Your task to perform on an android device: toggle wifi Image 0: 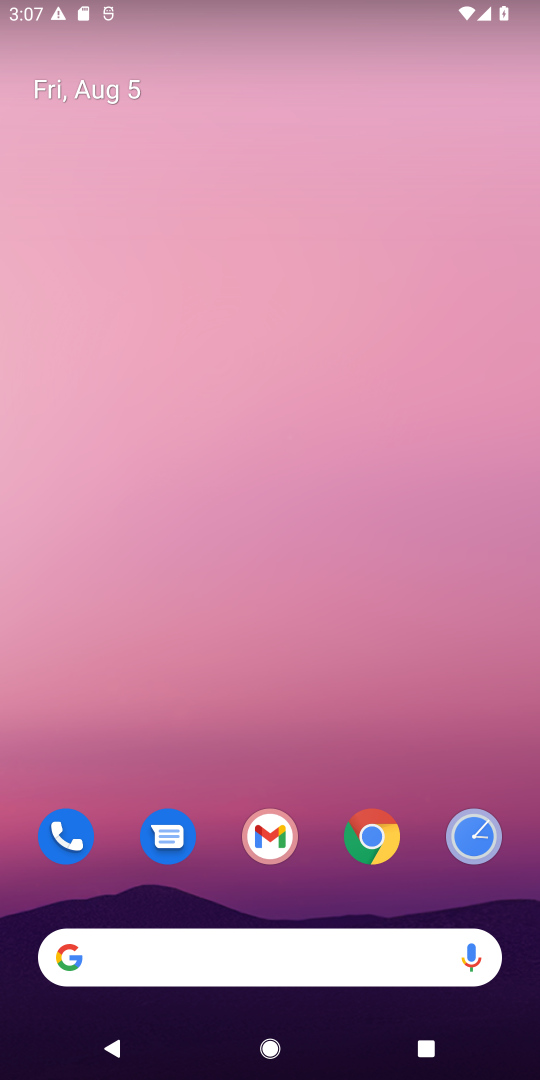
Step 0: drag from (309, 747) to (425, 61)
Your task to perform on an android device: toggle wifi Image 1: 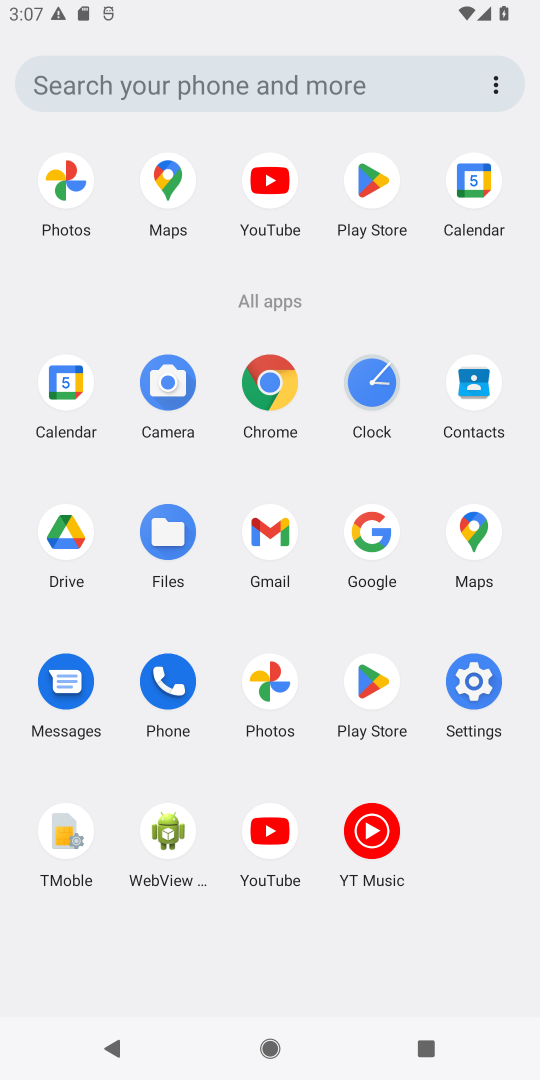
Step 1: click (264, 382)
Your task to perform on an android device: toggle wifi Image 2: 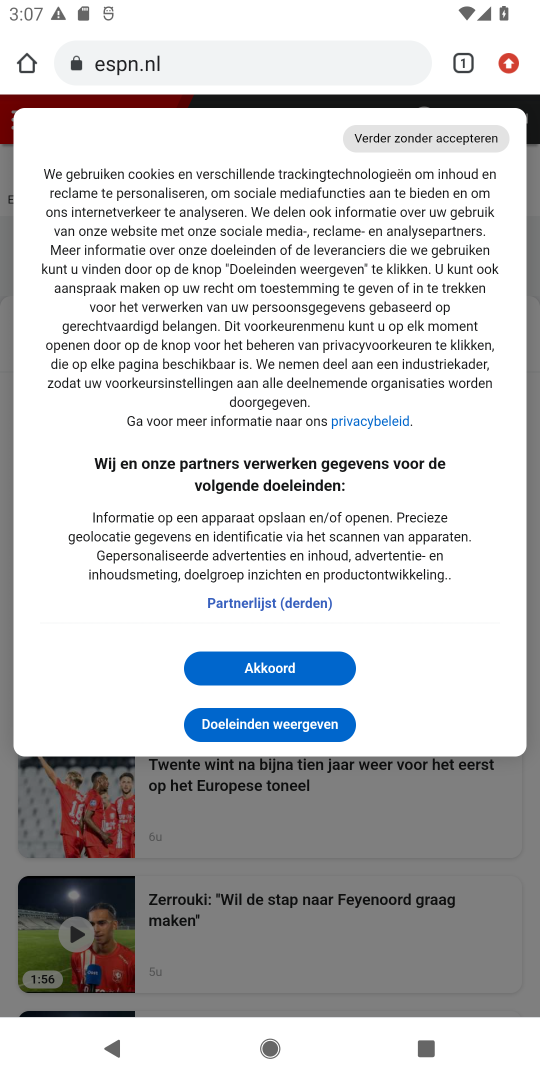
Step 2: press home button
Your task to perform on an android device: toggle wifi Image 3: 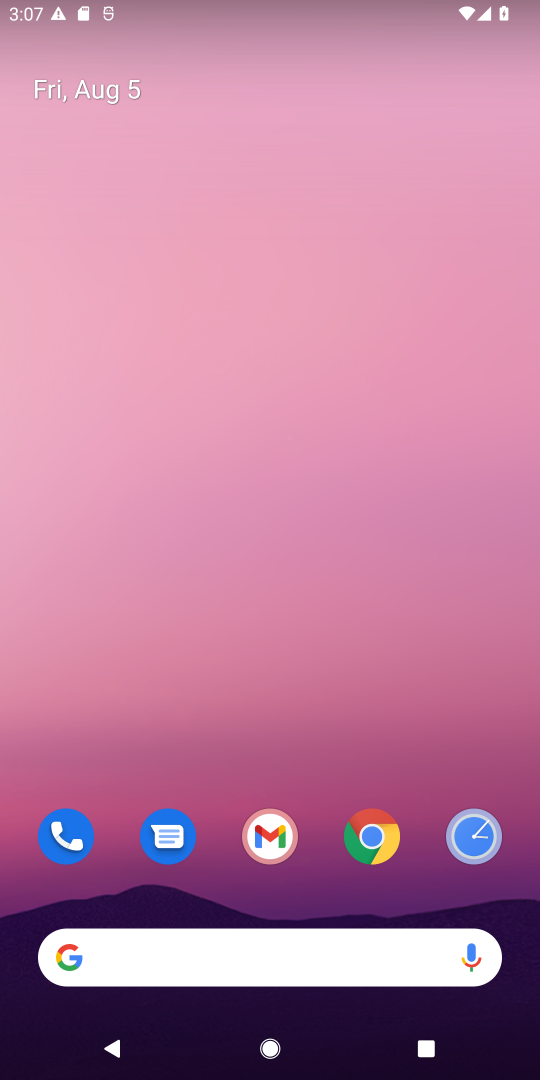
Step 3: drag from (308, 784) to (312, 42)
Your task to perform on an android device: toggle wifi Image 4: 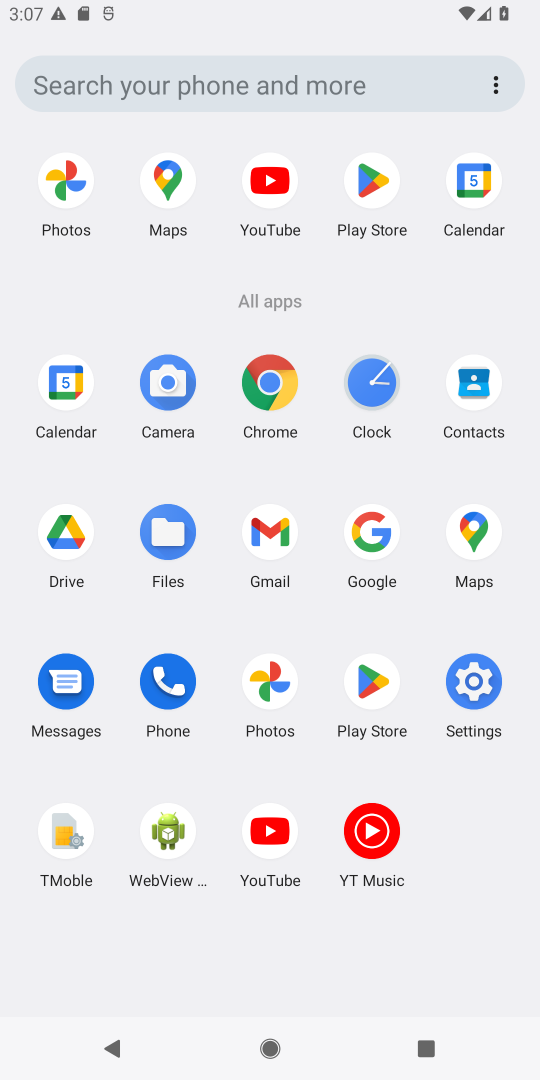
Step 4: click (470, 686)
Your task to perform on an android device: toggle wifi Image 5: 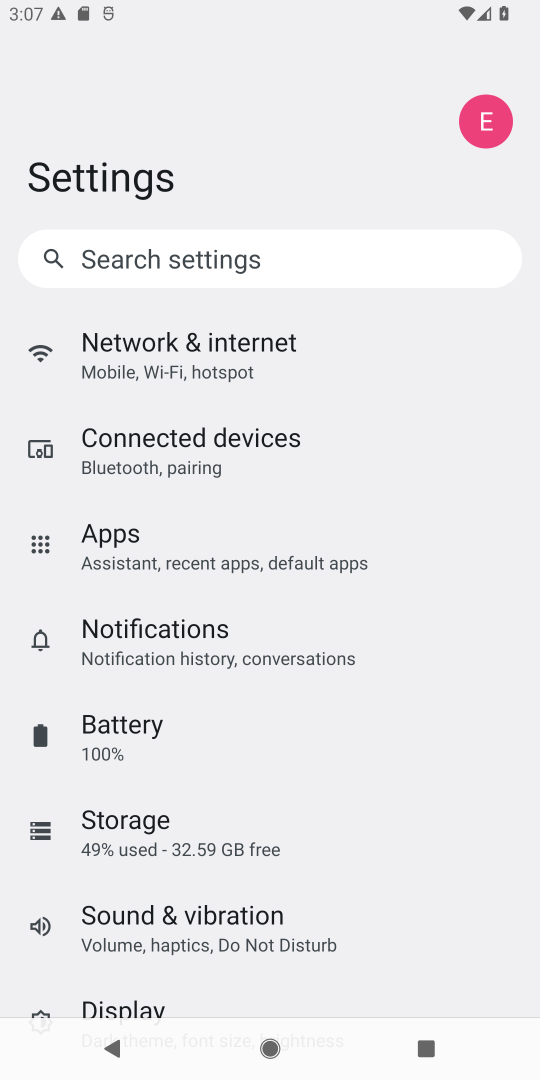
Step 5: click (236, 359)
Your task to perform on an android device: toggle wifi Image 6: 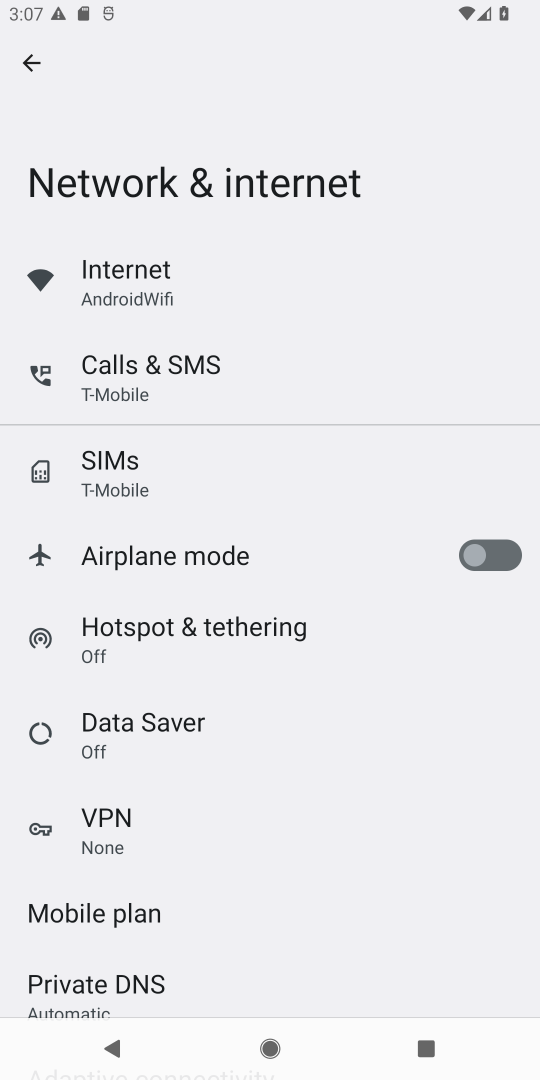
Step 6: click (74, 268)
Your task to perform on an android device: toggle wifi Image 7: 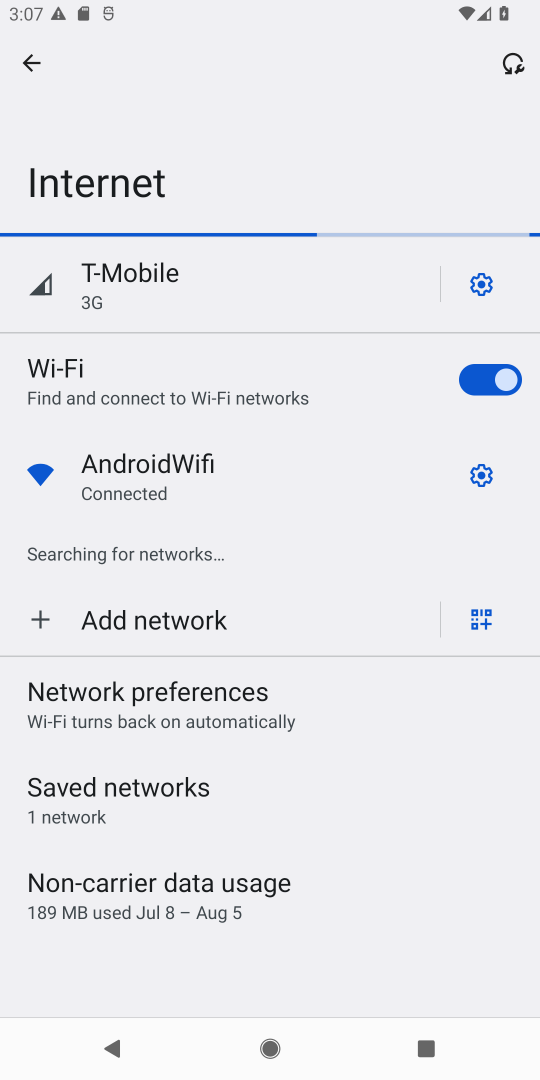
Step 7: click (484, 391)
Your task to perform on an android device: toggle wifi Image 8: 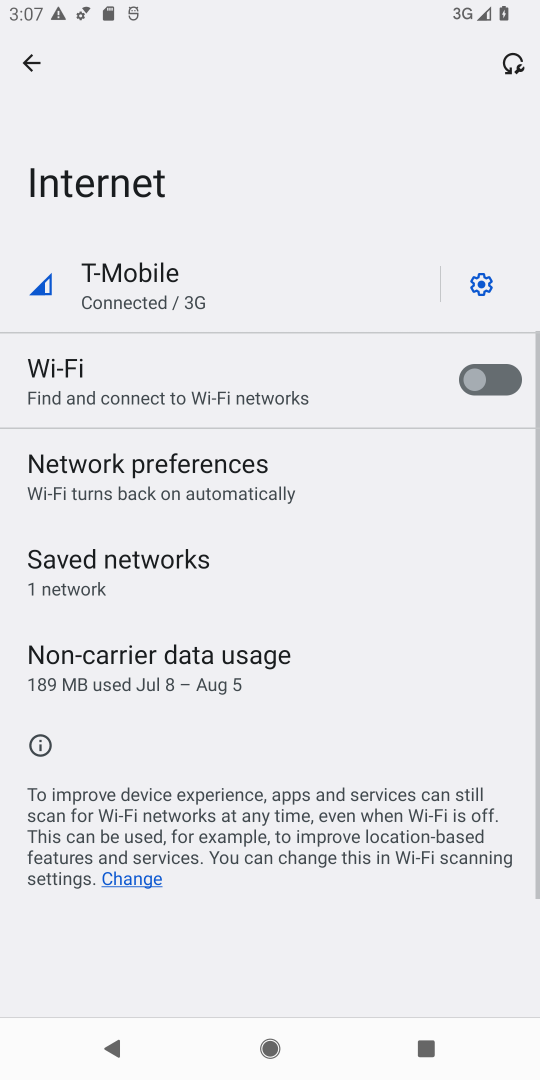
Step 8: task complete